Your task to perform on an android device: turn on wifi Image 0: 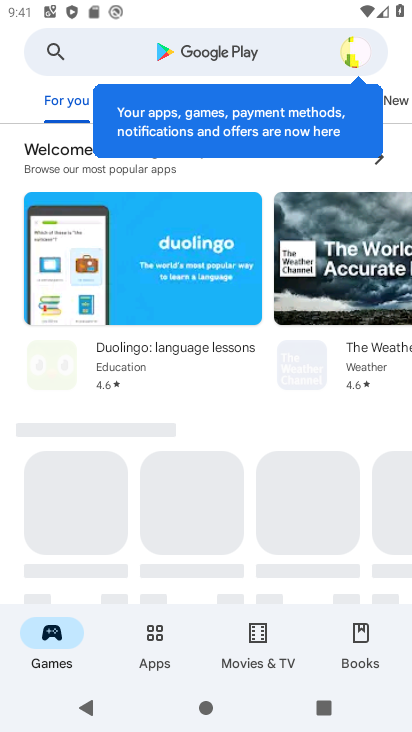
Step 0: press home button
Your task to perform on an android device: turn on wifi Image 1: 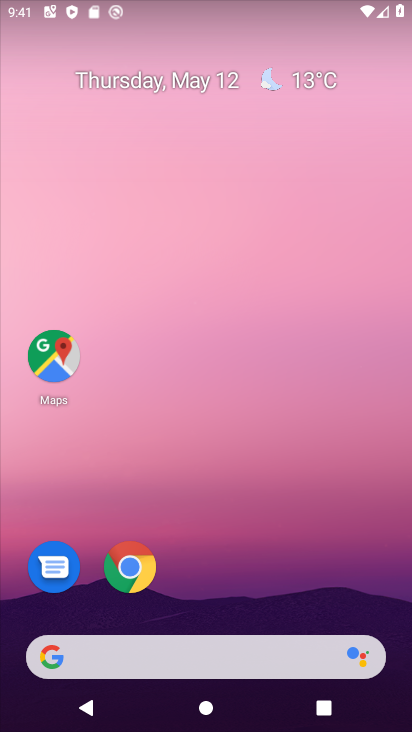
Step 1: drag from (294, 575) to (246, 67)
Your task to perform on an android device: turn on wifi Image 2: 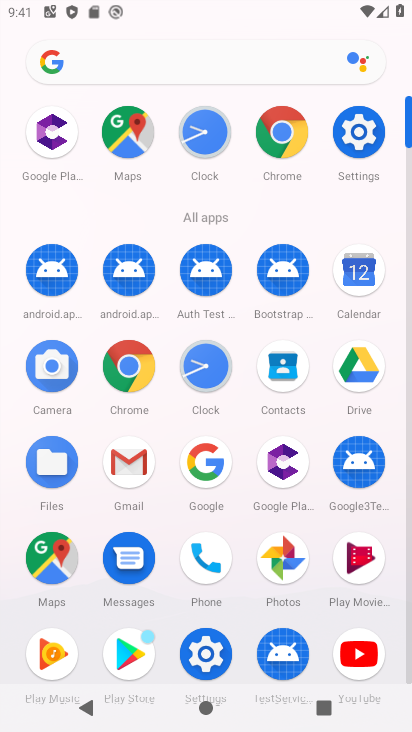
Step 2: click (353, 143)
Your task to perform on an android device: turn on wifi Image 3: 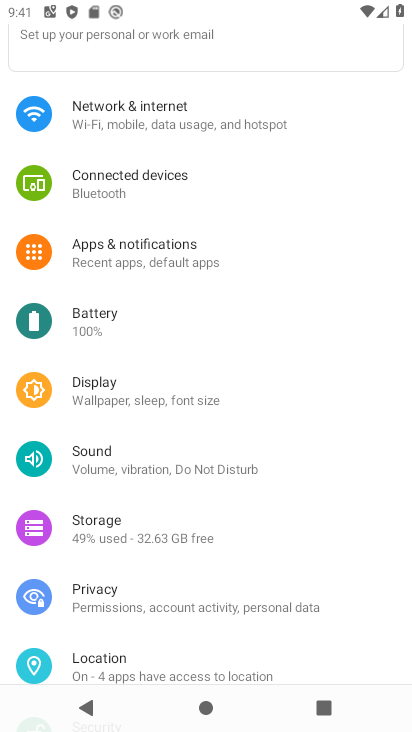
Step 3: drag from (260, 203) to (290, 433)
Your task to perform on an android device: turn on wifi Image 4: 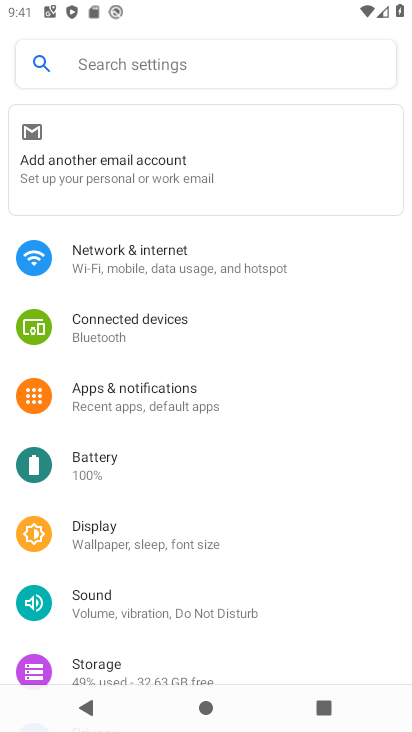
Step 4: click (229, 261)
Your task to perform on an android device: turn on wifi Image 5: 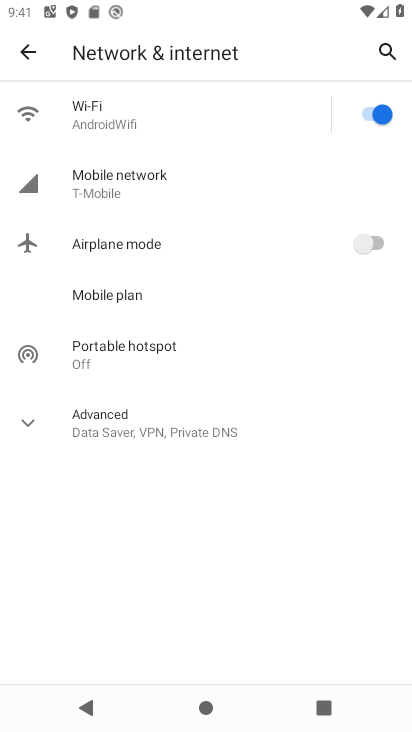
Step 5: click (106, 121)
Your task to perform on an android device: turn on wifi Image 6: 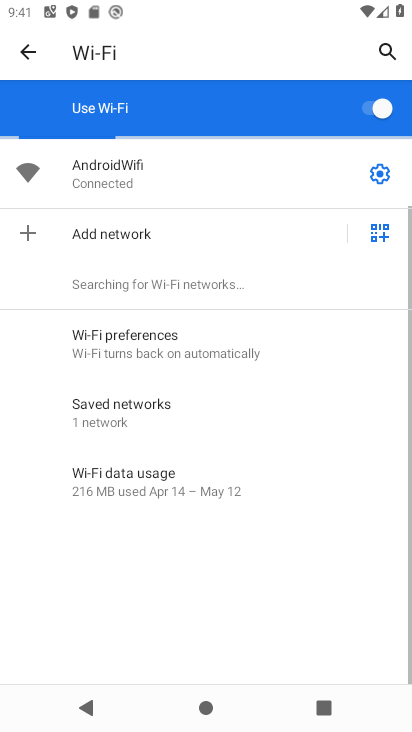
Step 6: task complete